Your task to perform on an android device: Do I have any events tomorrow? Image 0: 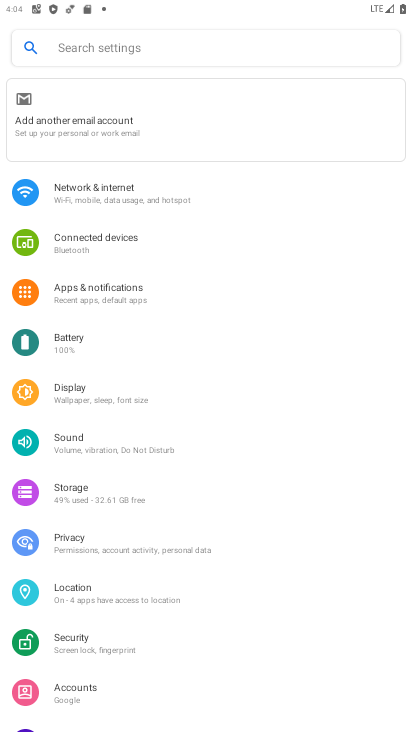
Step 0: press home button
Your task to perform on an android device: Do I have any events tomorrow? Image 1: 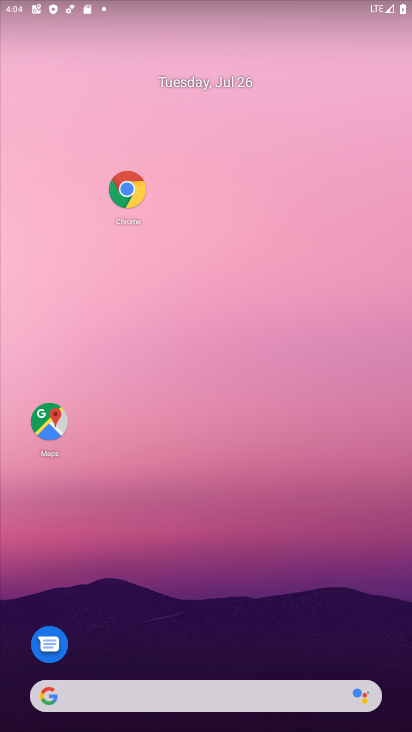
Step 1: drag from (230, 694) to (209, 186)
Your task to perform on an android device: Do I have any events tomorrow? Image 2: 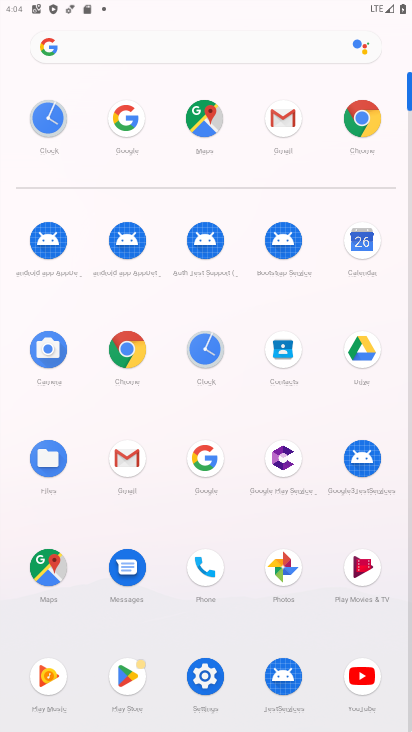
Step 2: click (367, 243)
Your task to perform on an android device: Do I have any events tomorrow? Image 3: 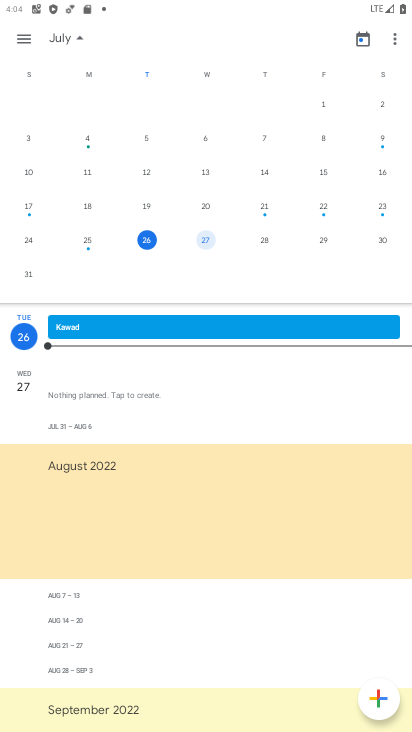
Step 3: click (208, 232)
Your task to perform on an android device: Do I have any events tomorrow? Image 4: 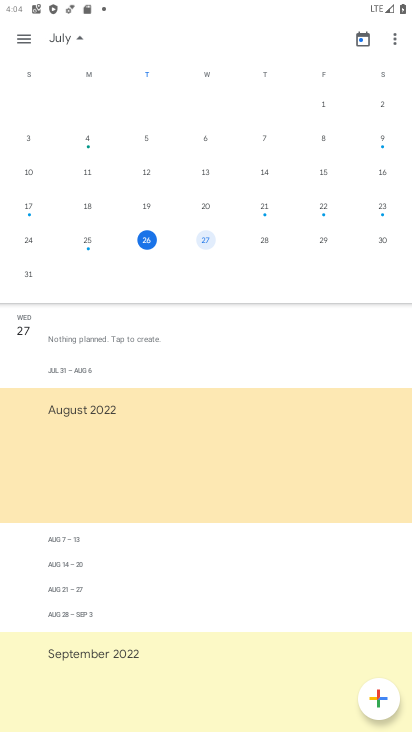
Step 4: task complete